Your task to perform on an android device: Open my contact list Image 0: 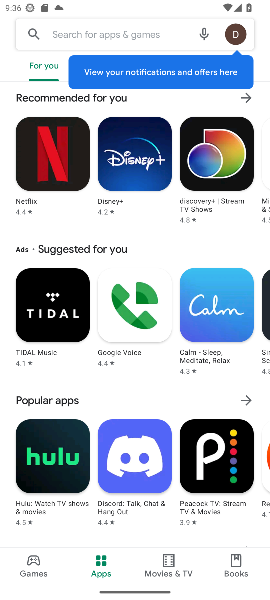
Step 0: press home button
Your task to perform on an android device: Open my contact list Image 1: 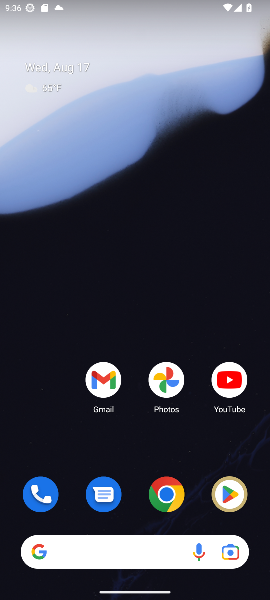
Step 1: drag from (132, 454) to (106, 0)
Your task to perform on an android device: Open my contact list Image 2: 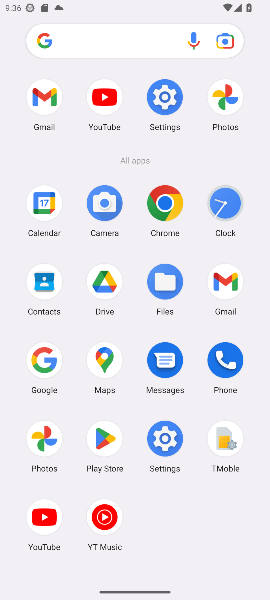
Step 2: click (50, 293)
Your task to perform on an android device: Open my contact list Image 3: 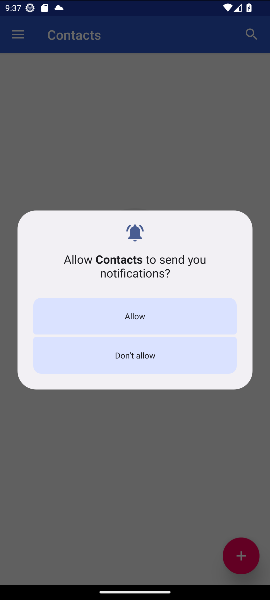
Step 3: click (155, 352)
Your task to perform on an android device: Open my contact list Image 4: 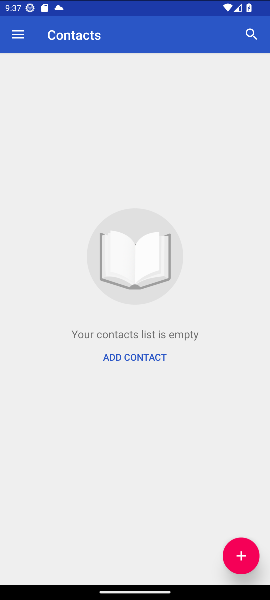
Step 4: task complete